Your task to perform on an android device: Open Wikipedia Image 0: 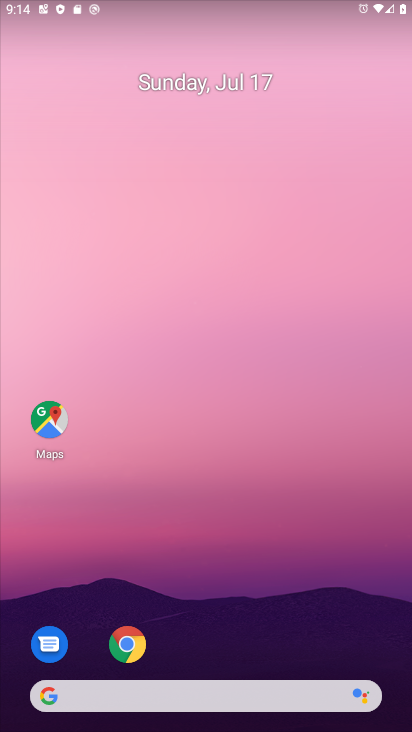
Step 0: drag from (208, 643) to (212, 248)
Your task to perform on an android device: Open Wikipedia Image 1: 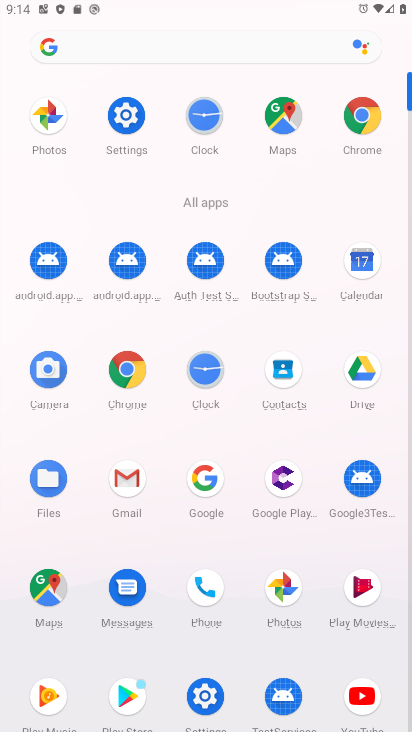
Step 1: click (128, 386)
Your task to perform on an android device: Open Wikipedia Image 2: 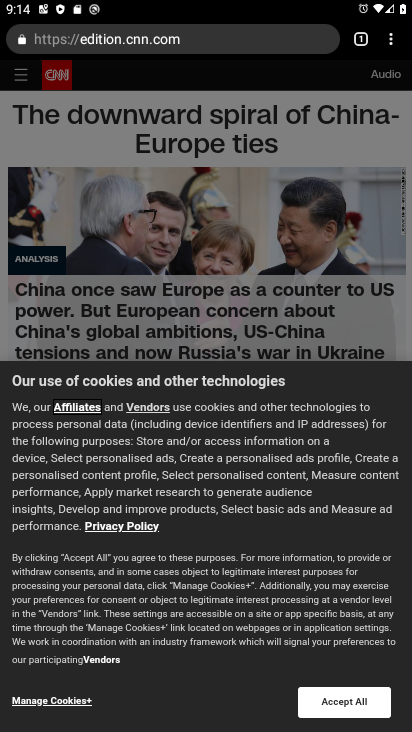
Step 2: click (357, 41)
Your task to perform on an android device: Open Wikipedia Image 3: 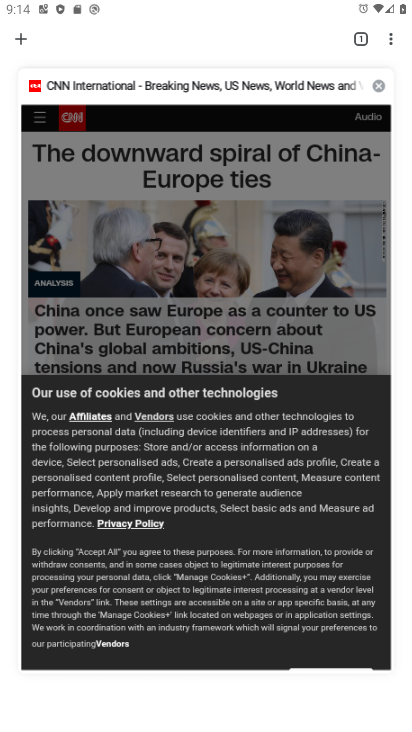
Step 3: click (21, 36)
Your task to perform on an android device: Open Wikipedia Image 4: 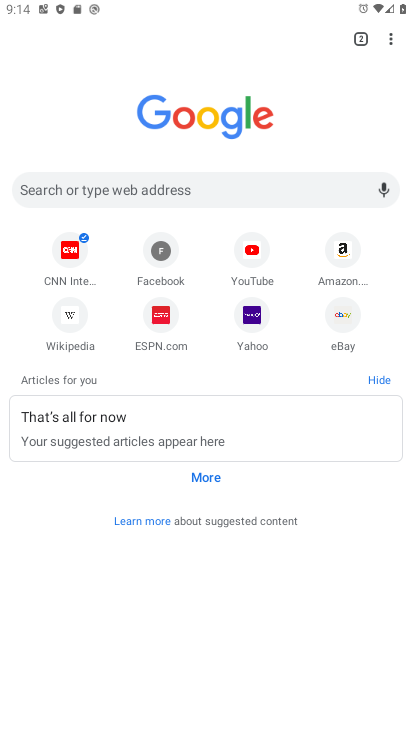
Step 4: click (60, 326)
Your task to perform on an android device: Open Wikipedia Image 5: 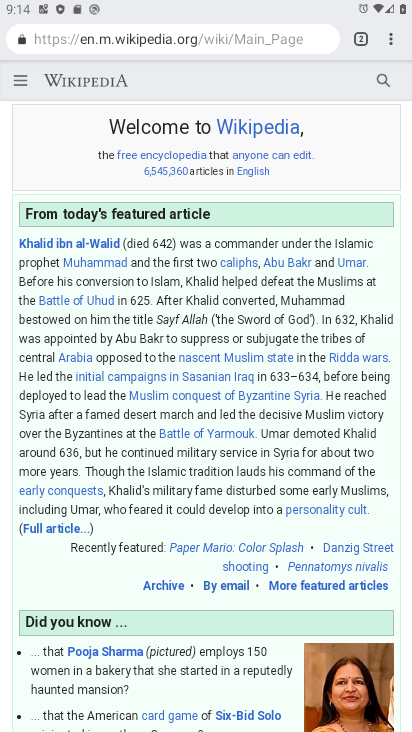
Step 5: task complete